Your task to perform on an android device: Do I have any events this weekend? Image 0: 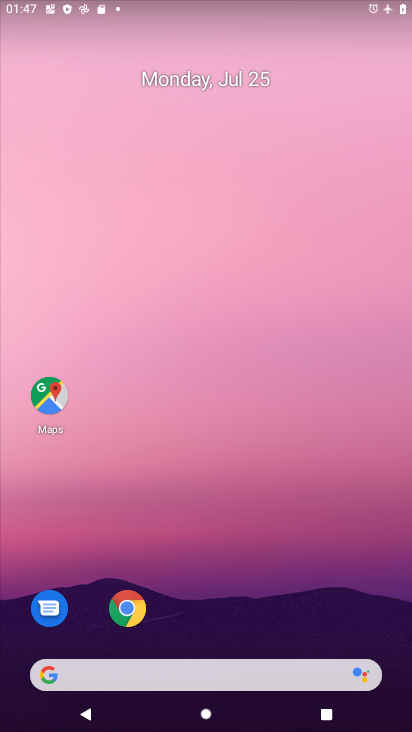
Step 0: drag from (234, 647) to (209, 36)
Your task to perform on an android device: Do I have any events this weekend? Image 1: 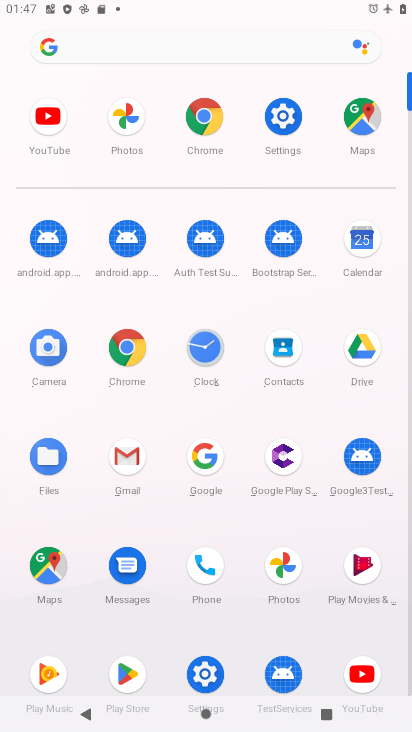
Step 1: click (368, 249)
Your task to perform on an android device: Do I have any events this weekend? Image 2: 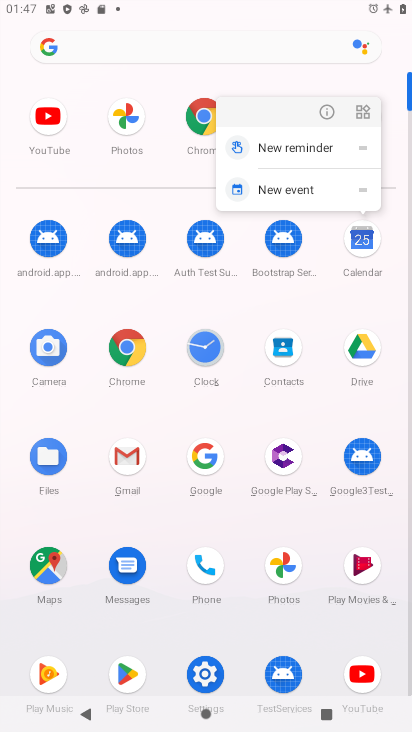
Step 2: click (356, 245)
Your task to perform on an android device: Do I have any events this weekend? Image 3: 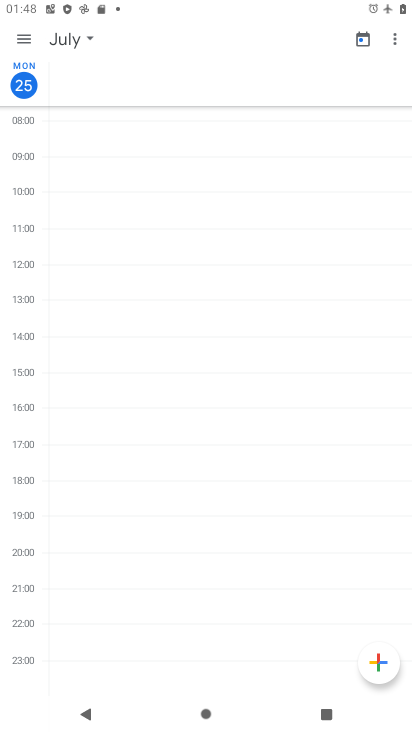
Step 3: click (362, 32)
Your task to perform on an android device: Do I have any events this weekend? Image 4: 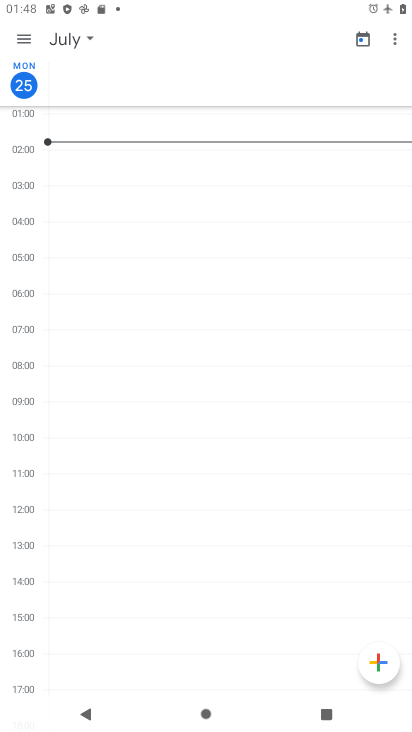
Step 4: click (355, 34)
Your task to perform on an android device: Do I have any events this weekend? Image 5: 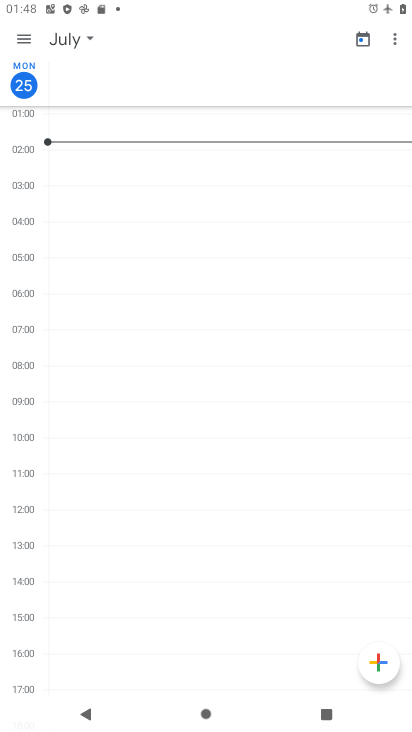
Step 5: click (16, 37)
Your task to perform on an android device: Do I have any events this weekend? Image 6: 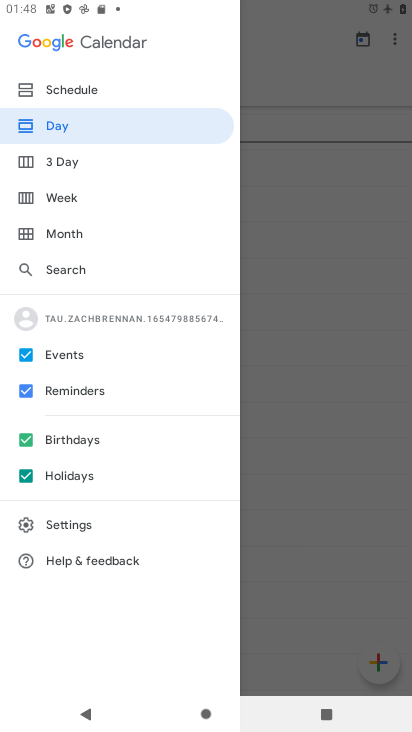
Step 6: click (54, 190)
Your task to perform on an android device: Do I have any events this weekend? Image 7: 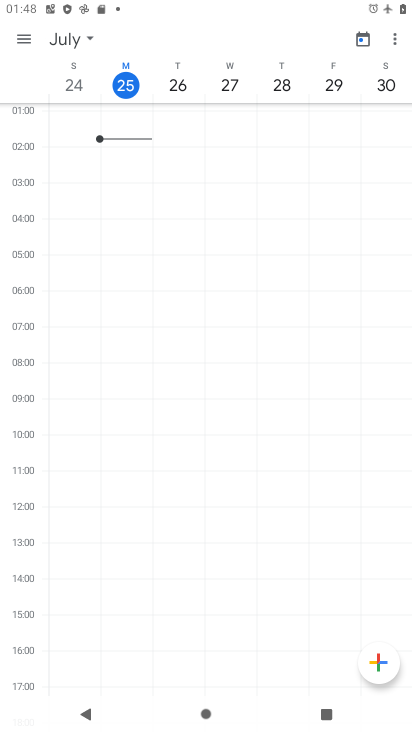
Step 7: task complete